Your task to perform on an android device: change keyboard looks Image 0: 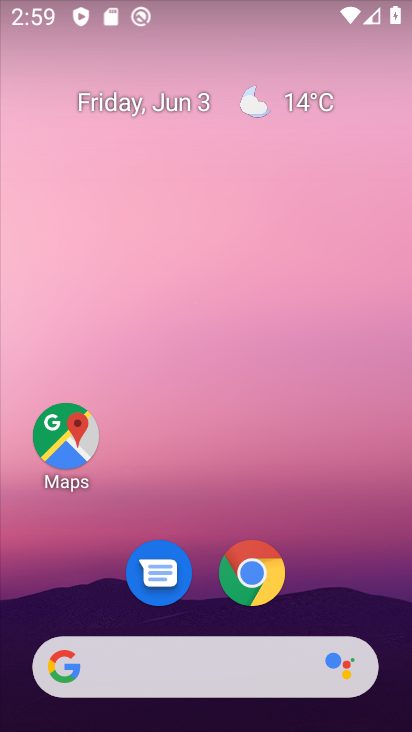
Step 0: drag from (309, 666) to (261, 54)
Your task to perform on an android device: change keyboard looks Image 1: 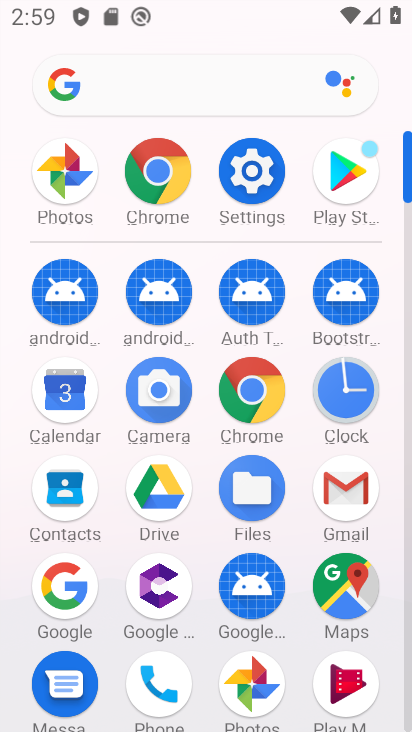
Step 1: click (251, 161)
Your task to perform on an android device: change keyboard looks Image 2: 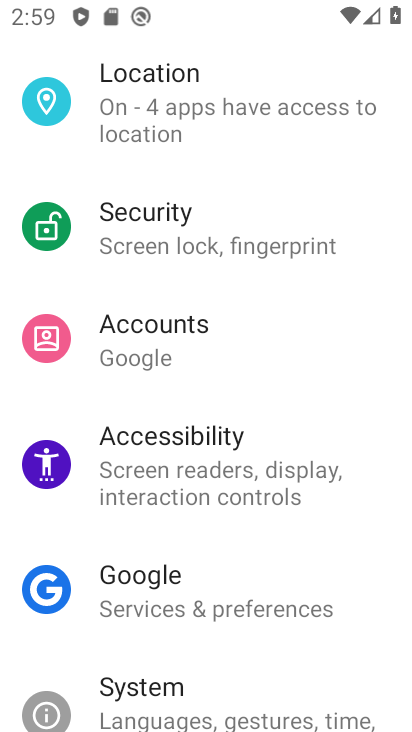
Step 2: drag from (206, 222) to (197, 721)
Your task to perform on an android device: change keyboard looks Image 3: 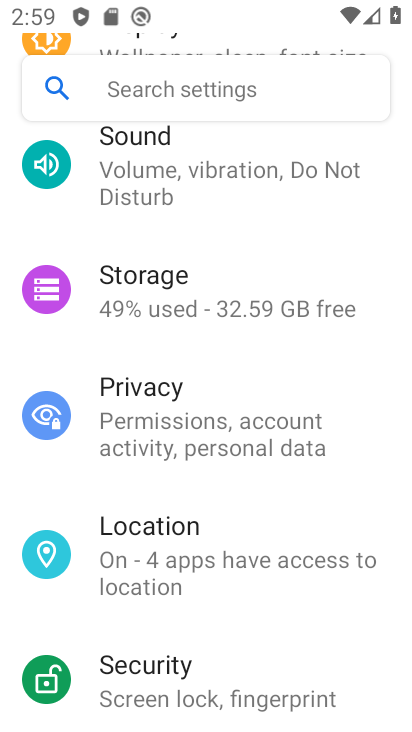
Step 3: drag from (257, 227) to (234, 637)
Your task to perform on an android device: change keyboard looks Image 4: 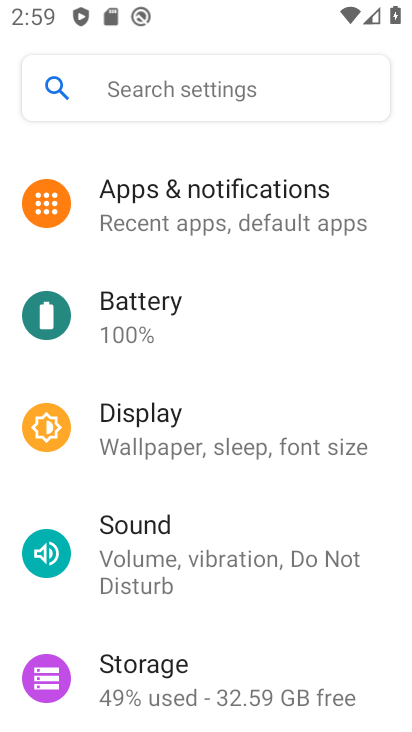
Step 4: click (180, 211)
Your task to perform on an android device: change keyboard looks Image 5: 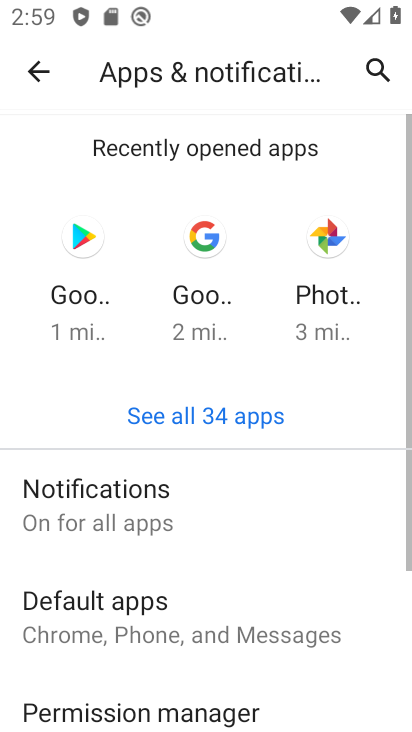
Step 5: press back button
Your task to perform on an android device: change keyboard looks Image 6: 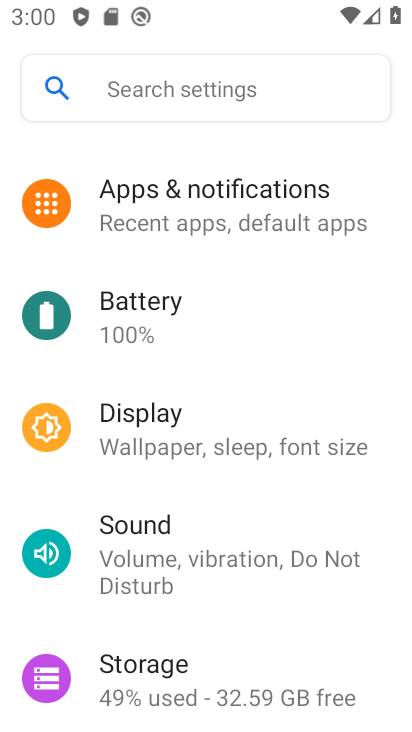
Step 6: drag from (165, 695) to (240, 118)
Your task to perform on an android device: change keyboard looks Image 7: 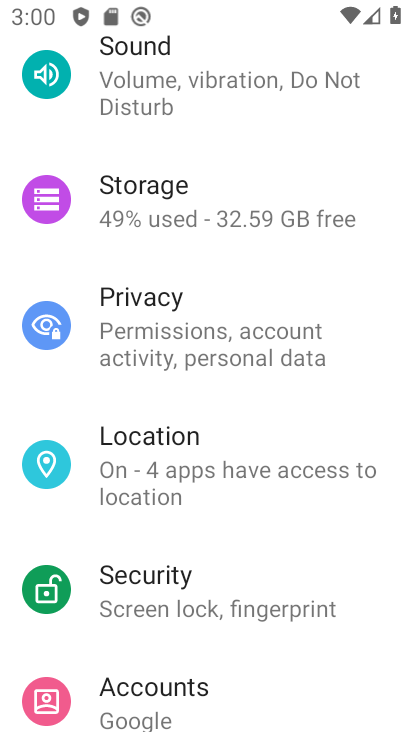
Step 7: drag from (226, 607) to (284, 108)
Your task to perform on an android device: change keyboard looks Image 8: 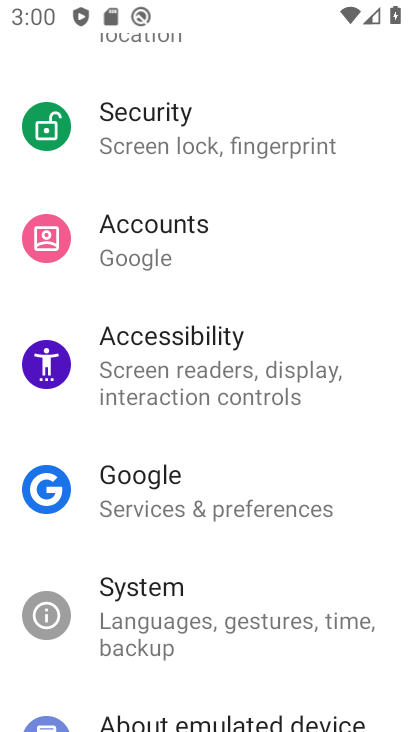
Step 8: drag from (225, 695) to (251, 482)
Your task to perform on an android device: change keyboard looks Image 9: 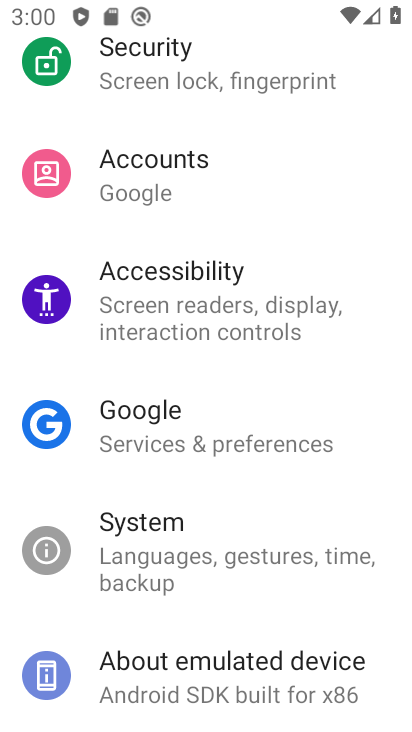
Step 9: click (216, 564)
Your task to perform on an android device: change keyboard looks Image 10: 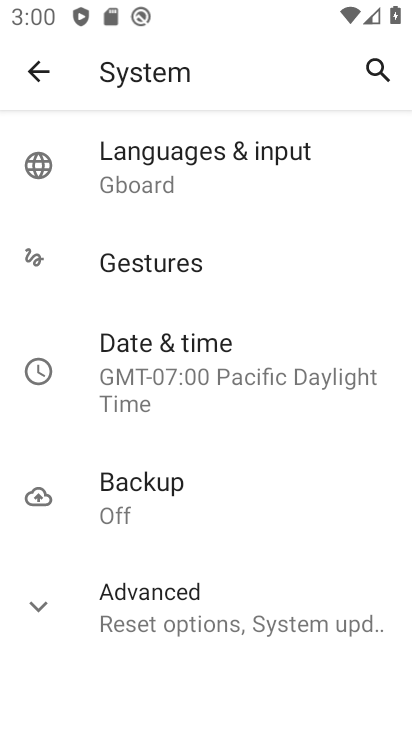
Step 10: click (205, 178)
Your task to perform on an android device: change keyboard looks Image 11: 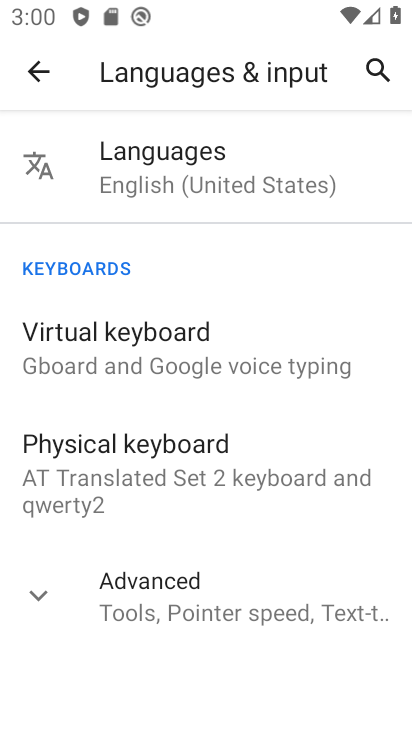
Step 11: click (218, 353)
Your task to perform on an android device: change keyboard looks Image 12: 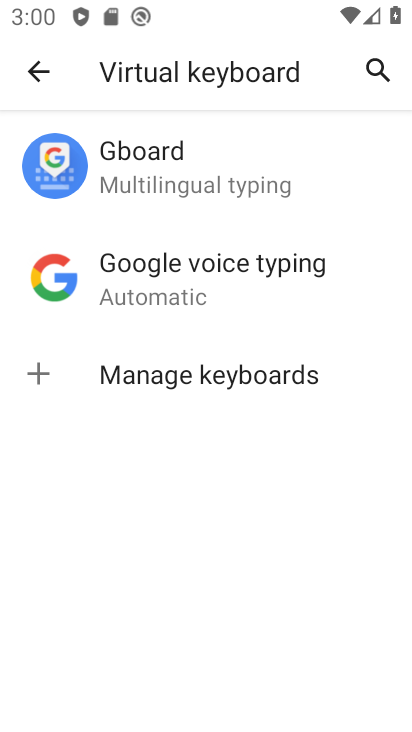
Step 12: click (237, 184)
Your task to perform on an android device: change keyboard looks Image 13: 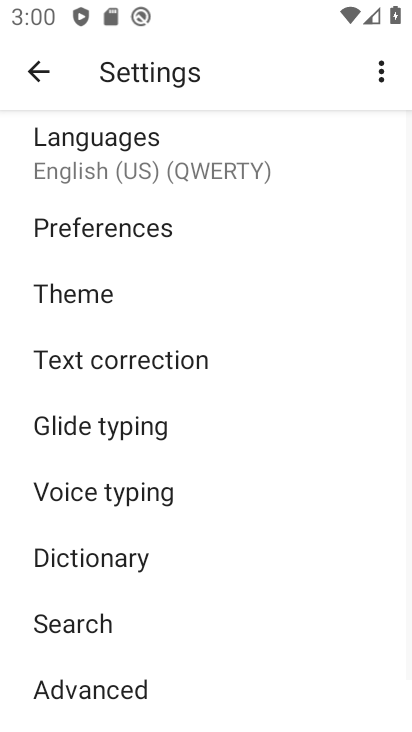
Step 13: click (84, 295)
Your task to perform on an android device: change keyboard looks Image 14: 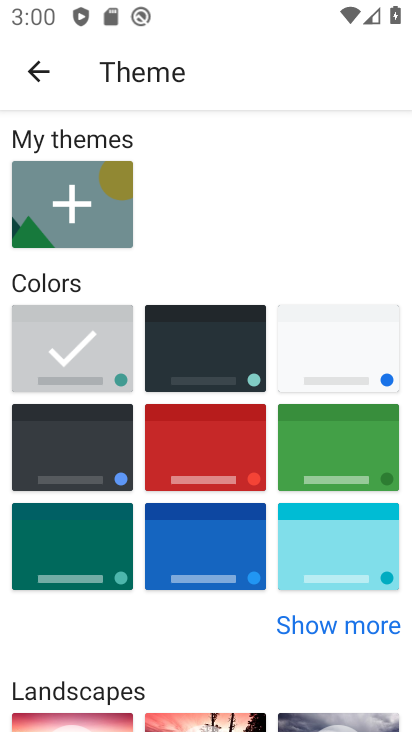
Step 14: click (212, 449)
Your task to perform on an android device: change keyboard looks Image 15: 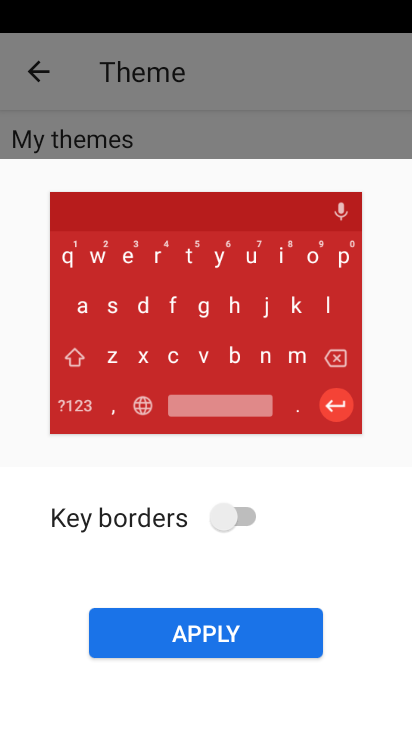
Step 15: click (251, 636)
Your task to perform on an android device: change keyboard looks Image 16: 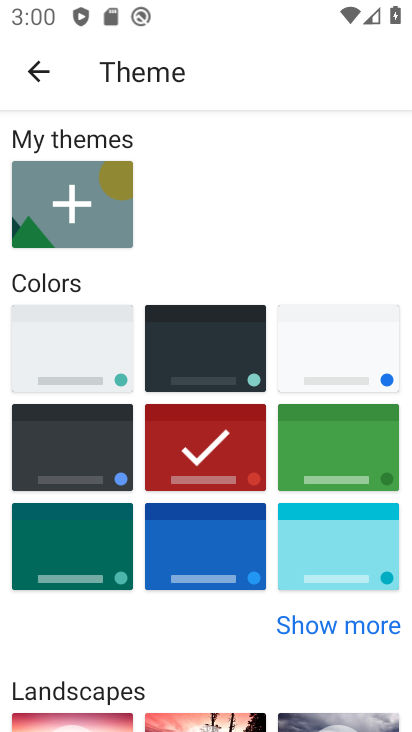
Step 16: task complete